Your task to perform on an android device: stop showing notifications on the lock screen Image 0: 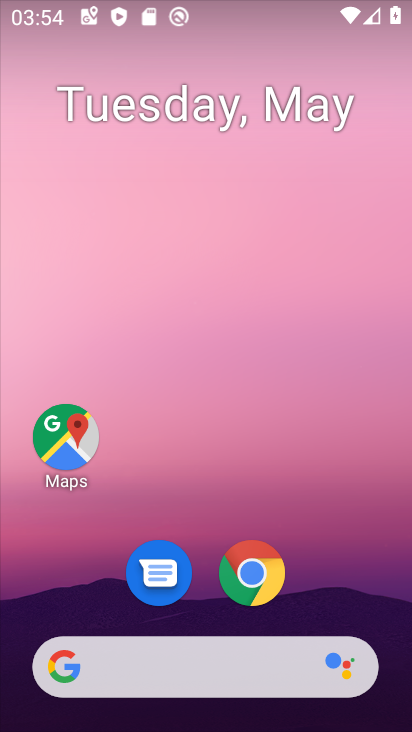
Step 0: drag from (180, 489) to (268, 40)
Your task to perform on an android device: stop showing notifications on the lock screen Image 1: 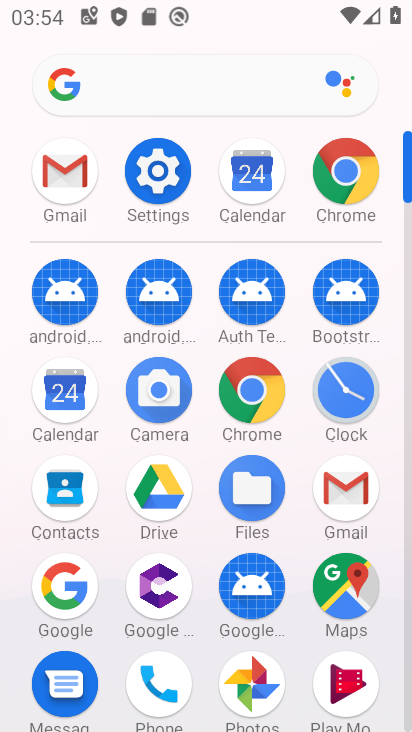
Step 1: click (146, 189)
Your task to perform on an android device: stop showing notifications on the lock screen Image 2: 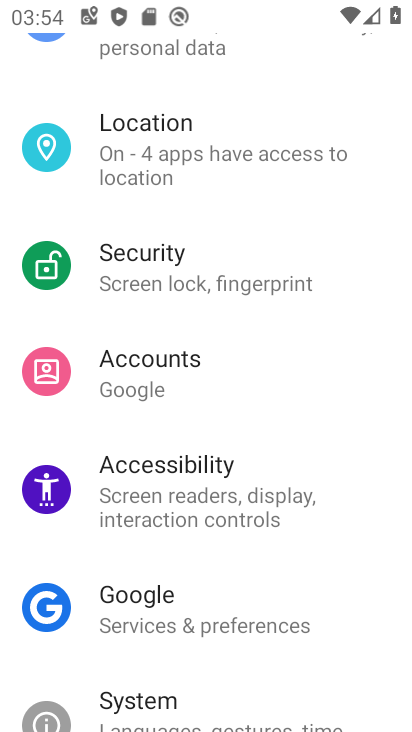
Step 2: drag from (157, 189) to (140, 703)
Your task to perform on an android device: stop showing notifications on the lock screen Image 3: 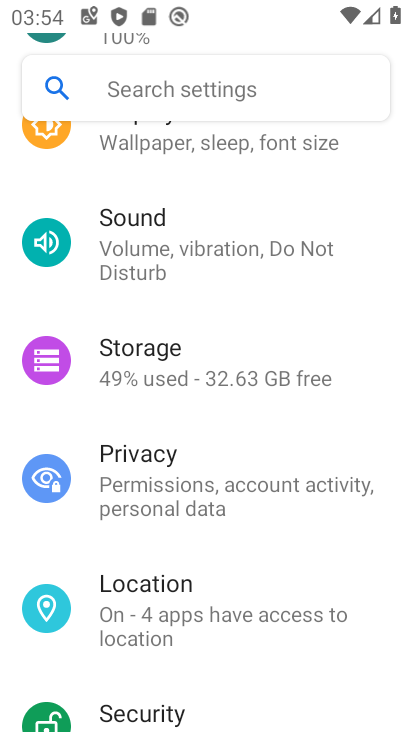
Step 3: drag from (201, 223) to (204, 695)
Your task to perform on an android device: stop showing notifications on the lock screen Image 4: 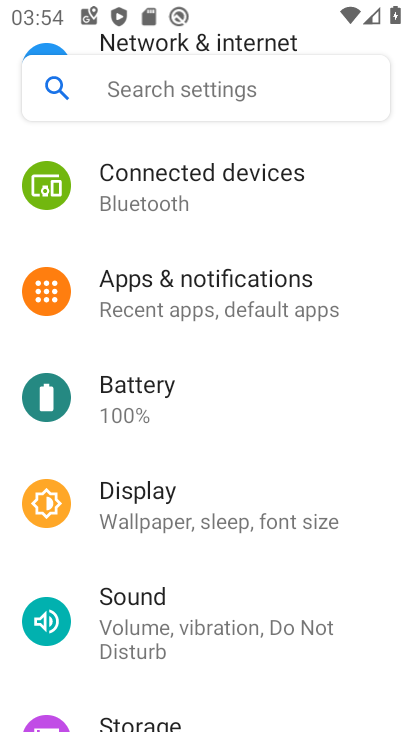
Step 4: click (192, 278)
Your task to perform on an android device: stop showing notifications on the lock screen Image 5: 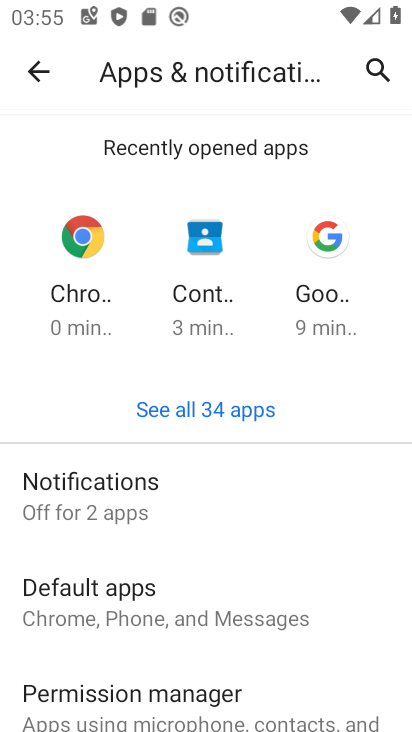
Step 5: click (149, 487)
Your task to perform on an android device: stop showing notifications on the lock screen Image 6: 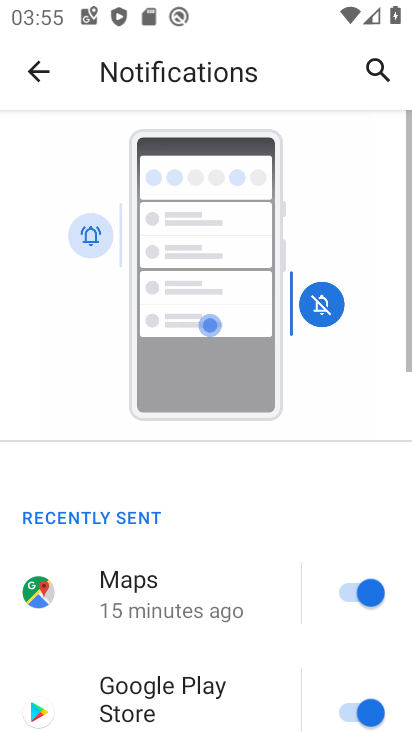
Step 6: drag from (185, 592) to (263, 47)
Your task to perform on an android device: stop showing notifications on the lock screen Image 7: 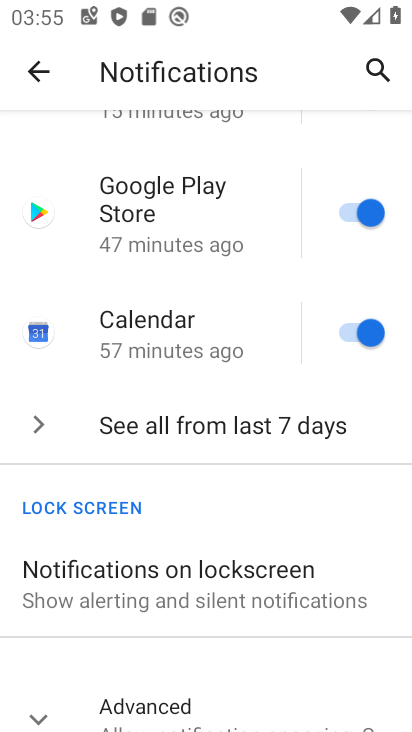
Step 7: click (172, 596)
Your task to perform on an android device: stop showing notifications on the lock screen Image 8: 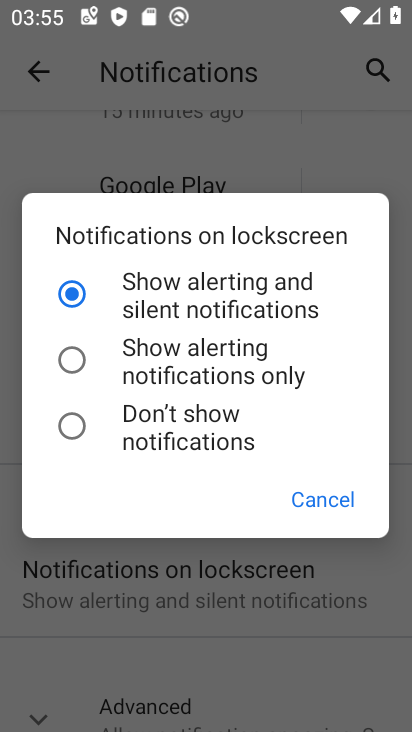
Step 8: click (67, 420)
Your task to perform on an android device: stop showing notifications on the lock screen Image 9: 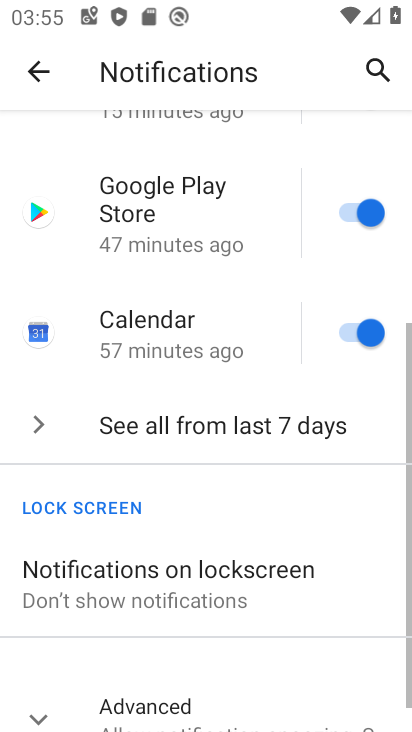
Step 9: task complete